Your task to perform on an android device: Open calendar and show me the second week of next month Image 0: 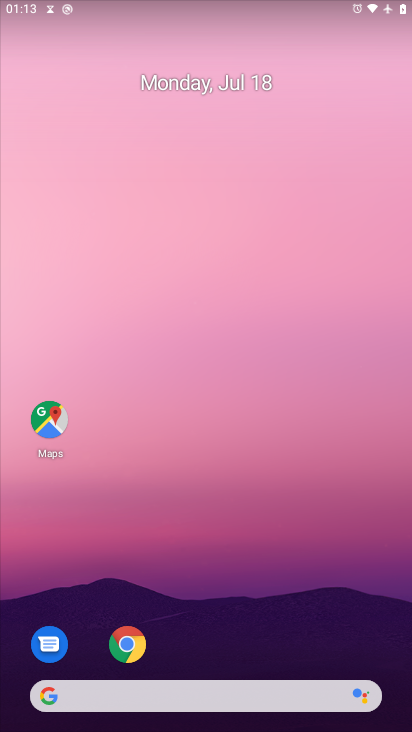
Step 0: press home button
Your task to perform on an android device: Open calendar and show me the second week of next month Image 1: 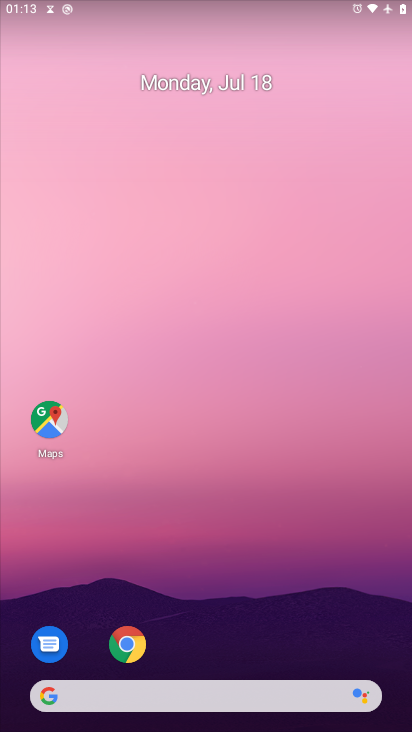
Step 1: drag from (214, 644) to (235, 42)
Your task to perform on an android device: Open calendar and show me the second week of next month Image 2: 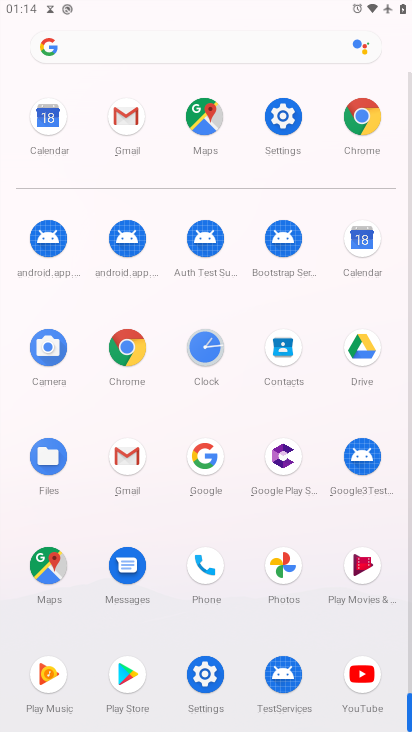
Step 2: click (357, 245)
Your task to perform on an android device: Open calendar and show me the second week of next month Image 3: 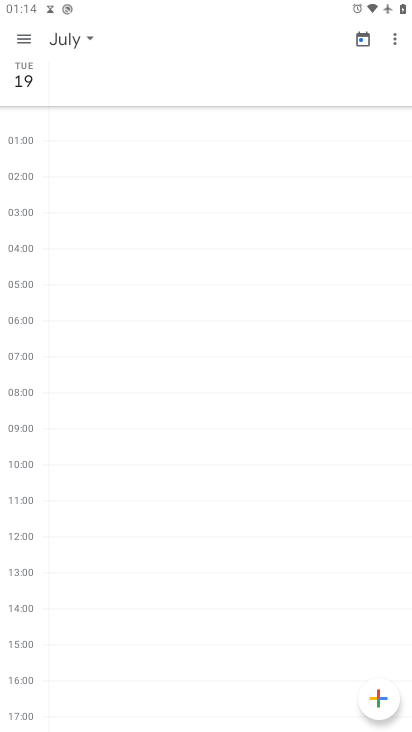
Step 3: click (84, 37)
Your task to perform on an android device: Open calendar and show me the second week of next month Image 4: 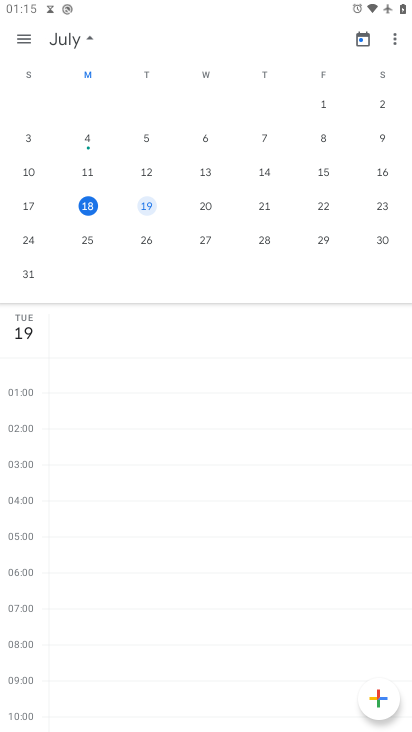
Step 4: drag from (314, 143) to (0, 138)
Your task to perform on an android device: Open calendar and show me the second week of next month Image 5: 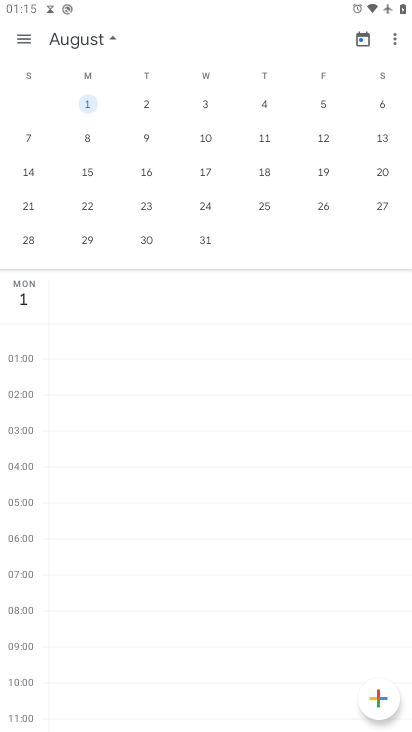
Step 5: click (88, 141)
Your task to perform on an android device: Open calendar and show me the second week of next month Image 6: 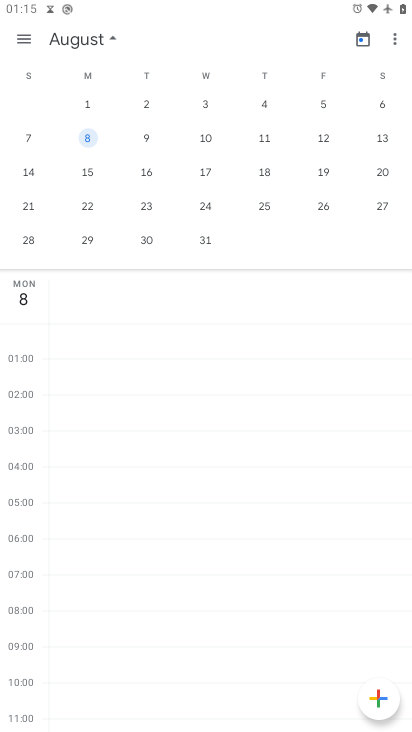
Step 6: click (145, 141)
Your task to perform on an android device: Open calendar and show me the second week of next month Image 7: 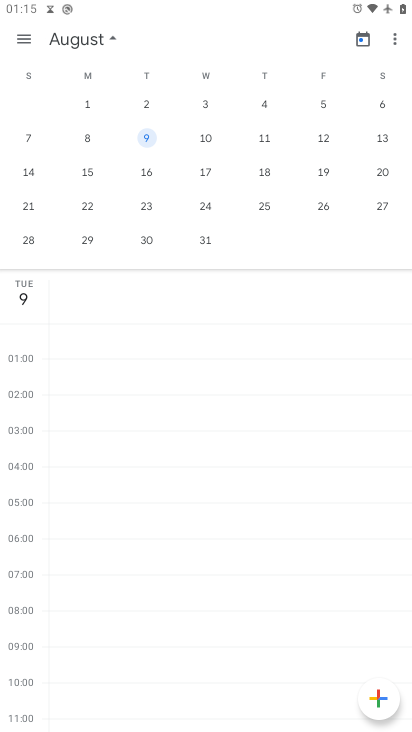
Step 7: click (209, 138)
Your task to perform on an android device: Open calendar and show me the second week of next month Image 8: 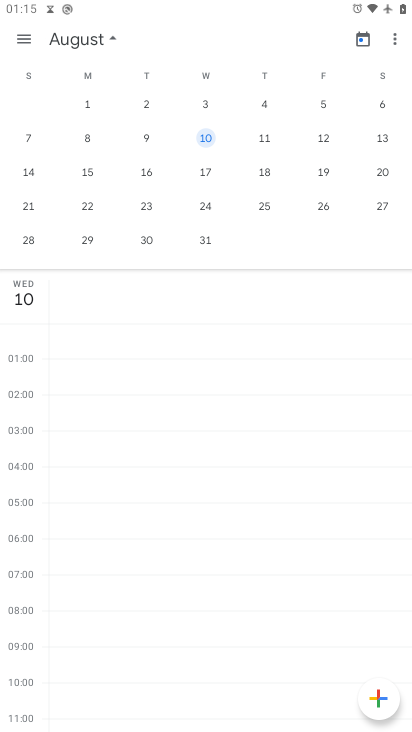
Step 8: click (271, 140)
Your task to perform on an android device: Open calendar and show me the second week of next month Image 9: 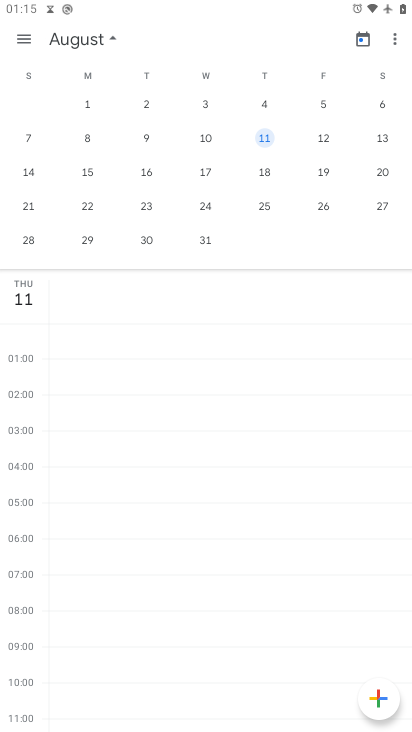
Step 9: click (328, 136)
Your task to perform on an android device: Open calendar and show me the second week of next month Image 10: 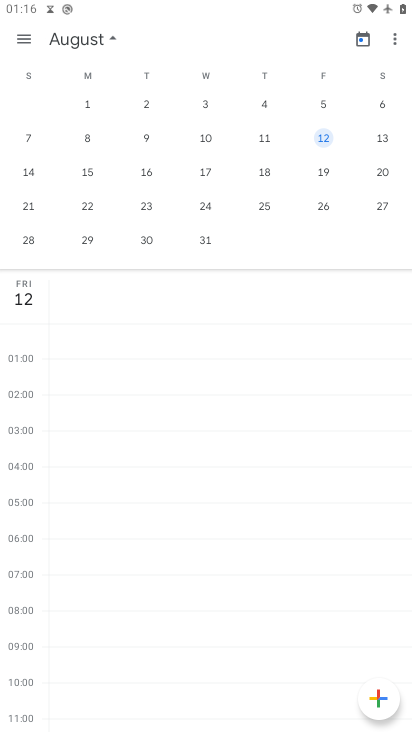
Step 10: click (384, 140)
Your task to perform on an android device: Open calendar and show me the second week of next month Image 11: 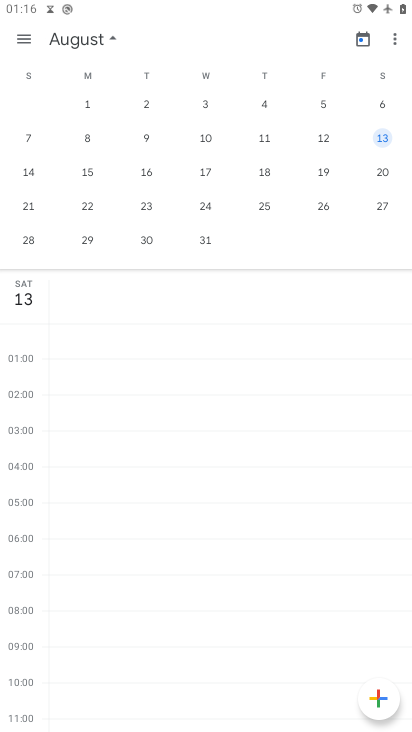
Step 11: click (27, 172)
Your task to perform on an android device: Open calendar and show me the second week of next month Image 12: 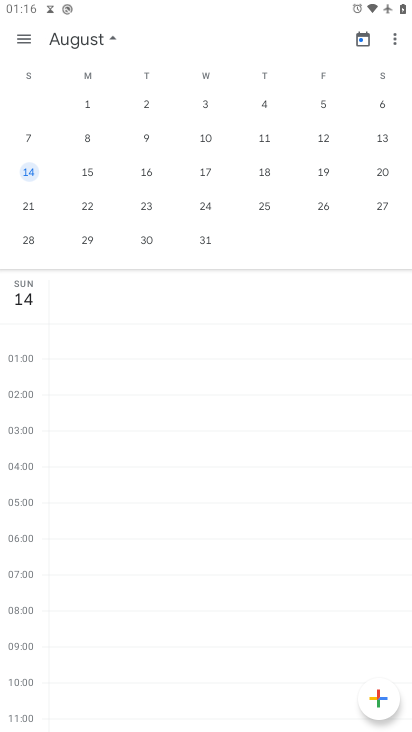
Step 12: task complete